Your task to perform on an android device: Go to privacy settings Image 0: 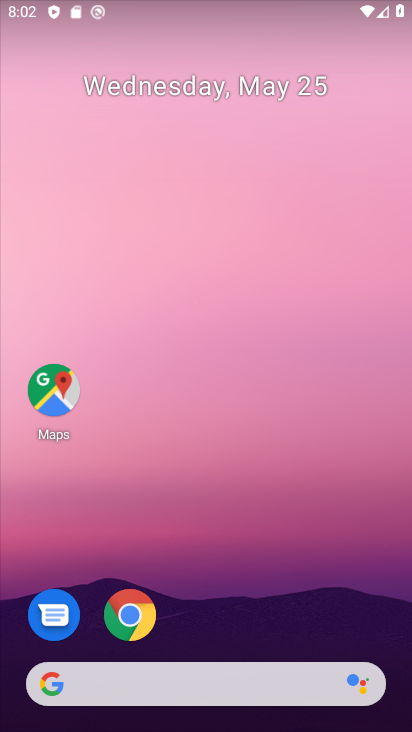
Step 0: drag from (216, 730) to (249, 2)
Your task to perform on an android device: Go to privacy settings Image 1: 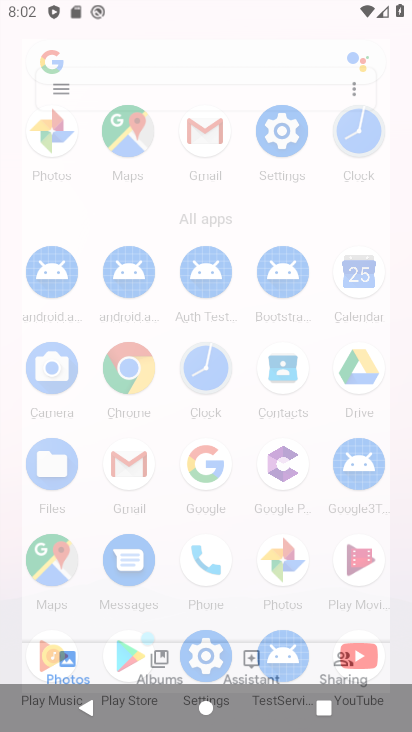
Step 1: click (292, 128)
Your task to perform on an android device: Go to privacy settings Image 2: 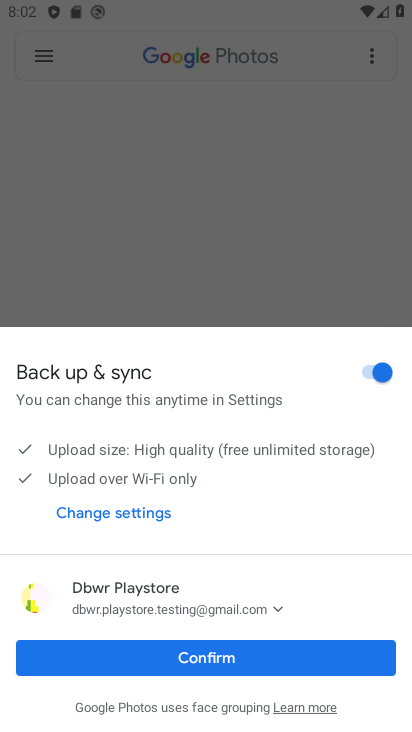
Step 2: press home button
Your task to perform on an android device: Go to privacy settings Image 3: 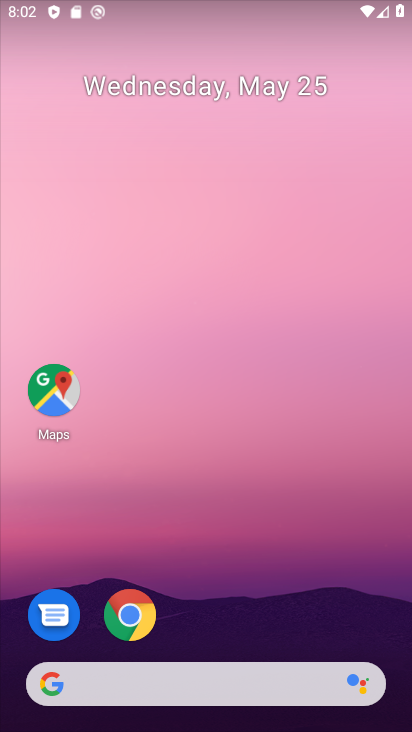
Step 3: drag from (177, 731) to (218, 112)
Your task to perform on an android device: Go to privacy settings Image 4: 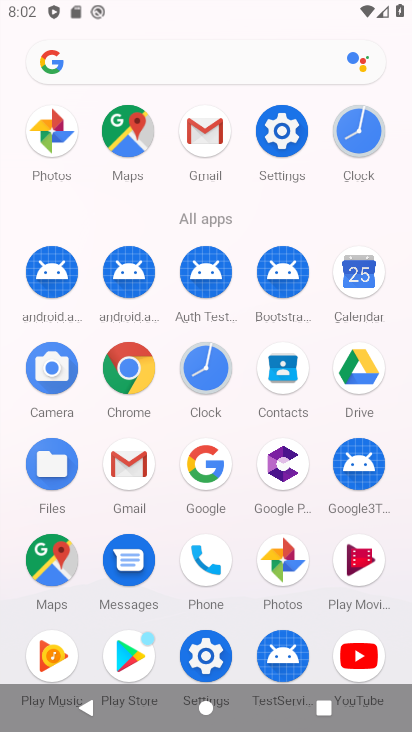
Step 4: click (287, 132)
Your task to perform on an android device: Go to privacy settings Image 5: 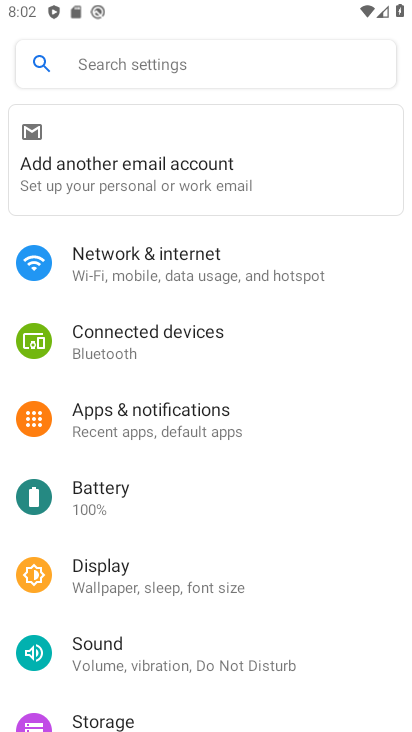
Step 5: drag from (261, 673) to (331, 286)
Your task to perform on an android device: Go to privacy settings Image 6: 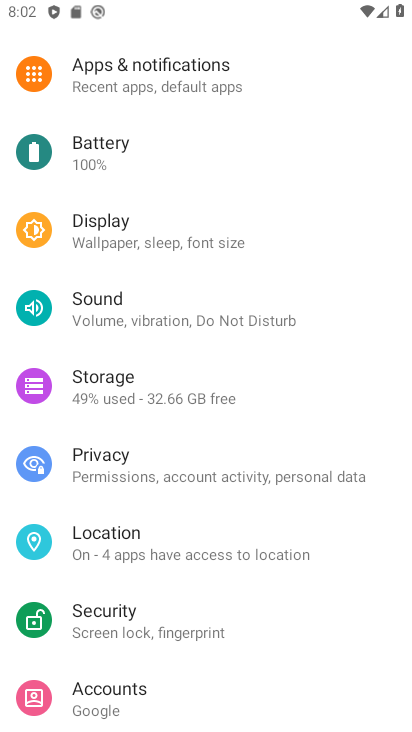
Step 6: click (178, 467)
Your task to perform on an android device: Go to privacy settings Image 7: 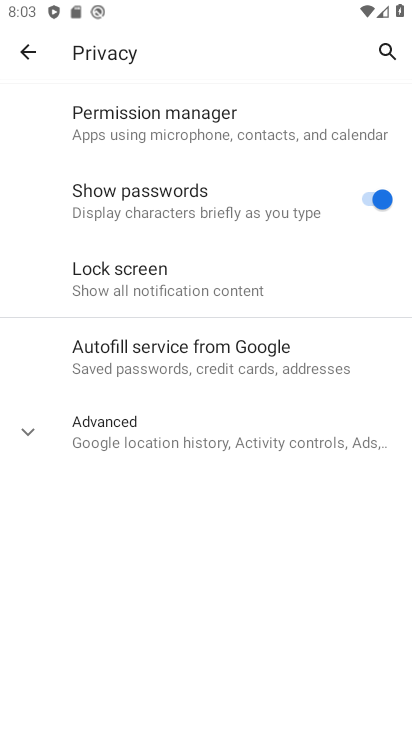
Step 7: task complete